Your task to perform on an android device: Go to privacy settings Image 0: 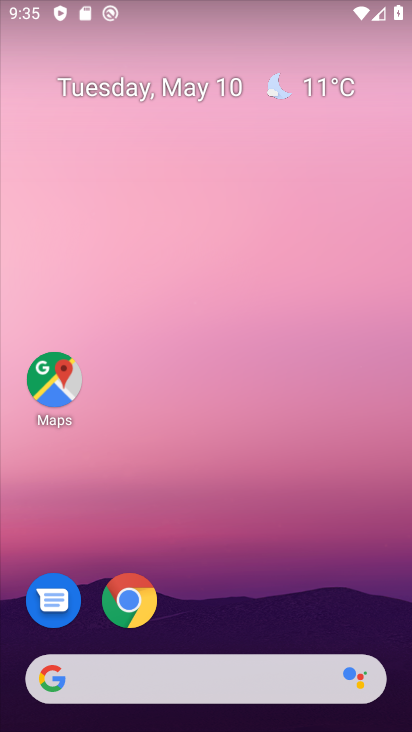
Step 0: click (218, 8)
Your task to perform on an android device: Go to privacy settings Image 1: 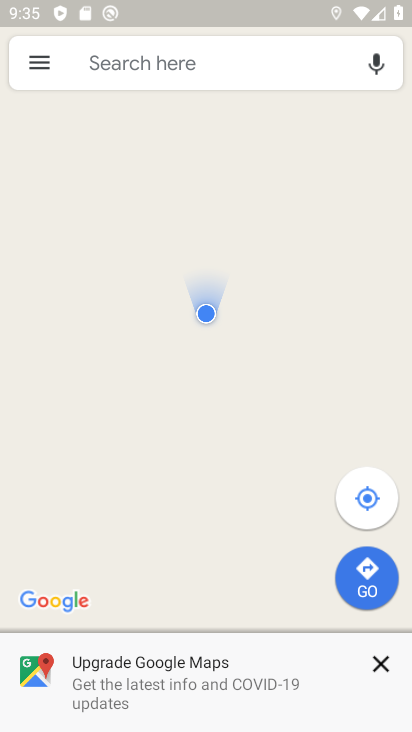
Step 1: press home button
Your task to perform on an android device: Go to privacy settings Image 2: 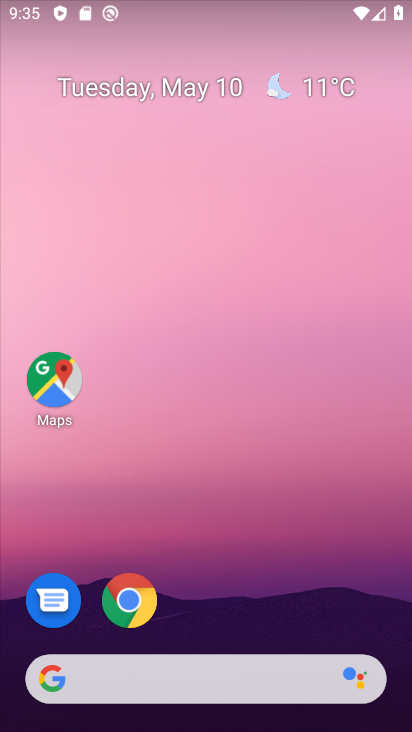
Step 2: drag from (282, 612) to (254, 74)
Your task to perform on an android device: Go to privacy settings Image 3: 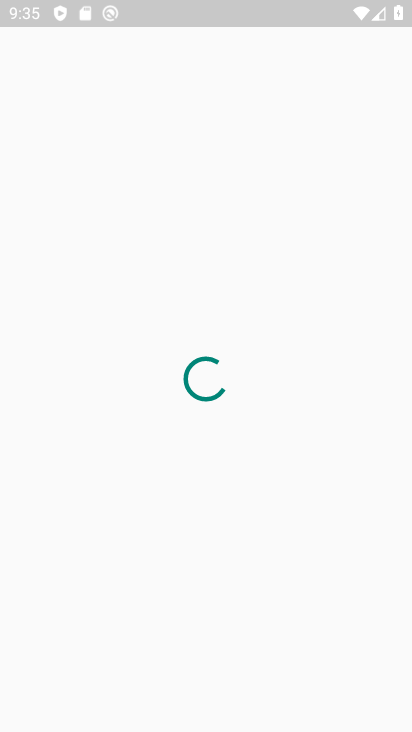
Step 3: click (125, 653)
Your task to perform on an android device: Go to privacy settings Image 4: 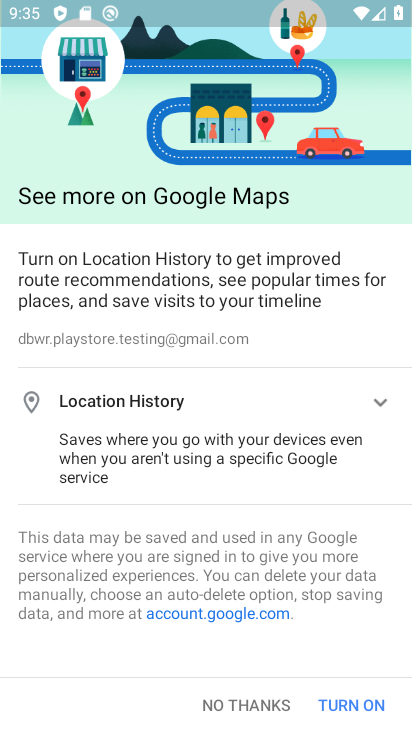
Step 4: press home button
Your task to perform on an android device: Go to privacy settings Image 5: 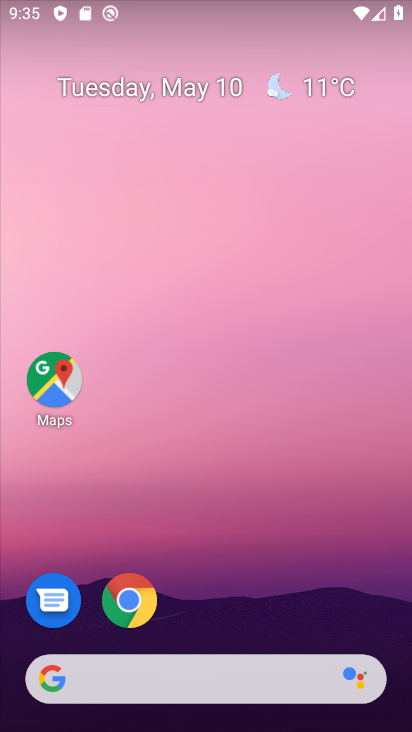
Step 5: drag from (256, 544) to (188, 0)
Your task to perform on an android device: Go to privacy settings Image 6: 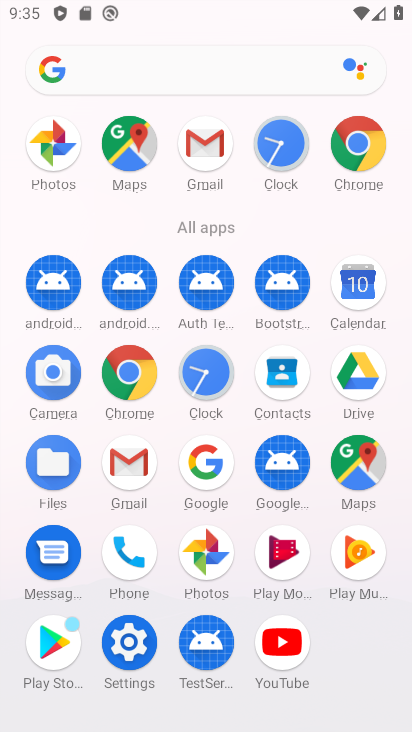
Step 6: click (122, 656)
Your task to perform on an android device: Go to privacy settings Image 7: 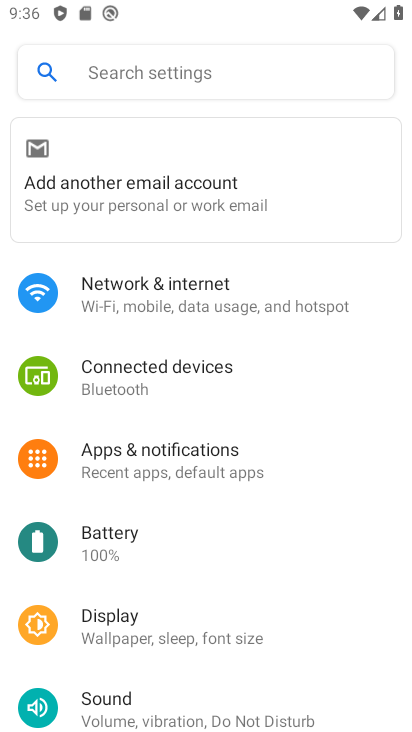
Step 7: drag from (131, 656) to (154, 210)
Your task to perform on an android device: Go to privacy settings Image 8: 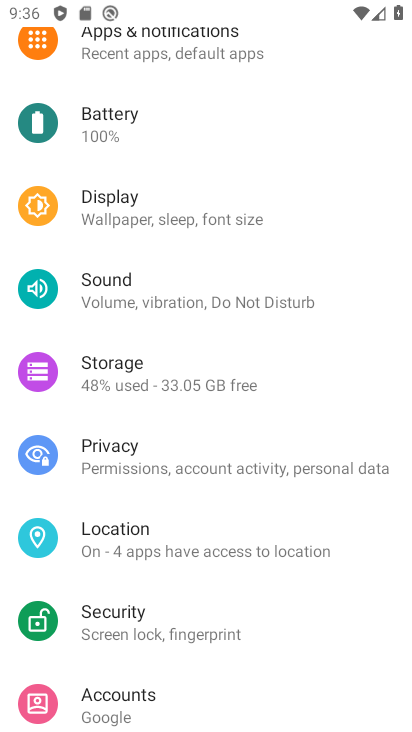
Step 8: click (165, 461)
Your task to perform on an android device: Go to privacy settings Image 9: 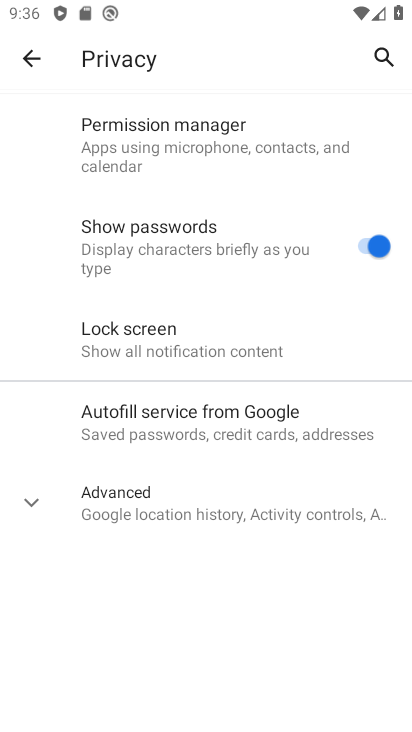
Step 9: task complete